Your task to perform on an android device: toggle priority inbox in the gmail app Image 0: 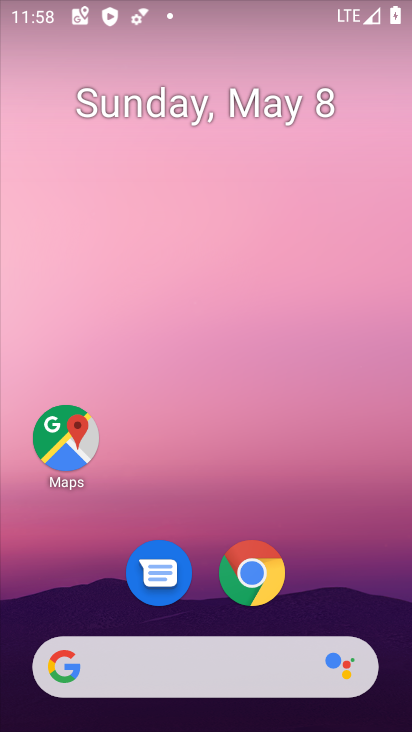
Step 0: drag from (310, 532) to (267, 34)
Your task to perform on an android device: toggle priority inbox in the gmail app Image 1: 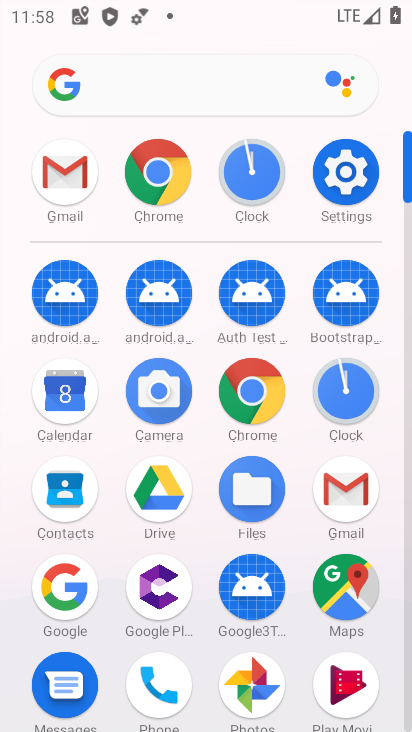
Step 1: drag from (8, 598) to (7, 211)
Your task to perform on an android device: toggle priority inbox in the gmail app Image 2: 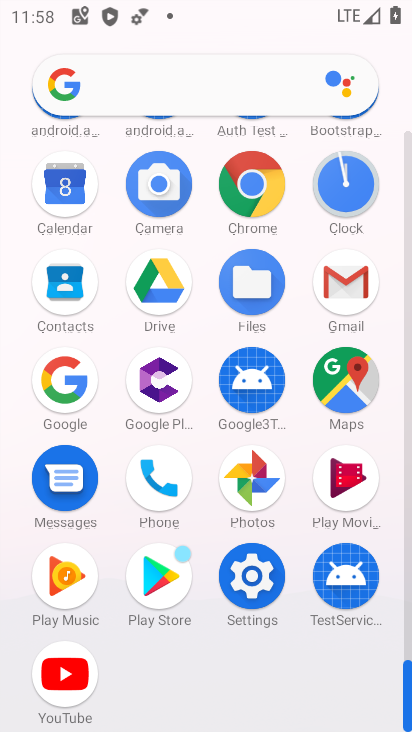
Step 2: click (347, 277)
Your task to perform on an android device: toggle priority inbox in the gmail app Image 3: 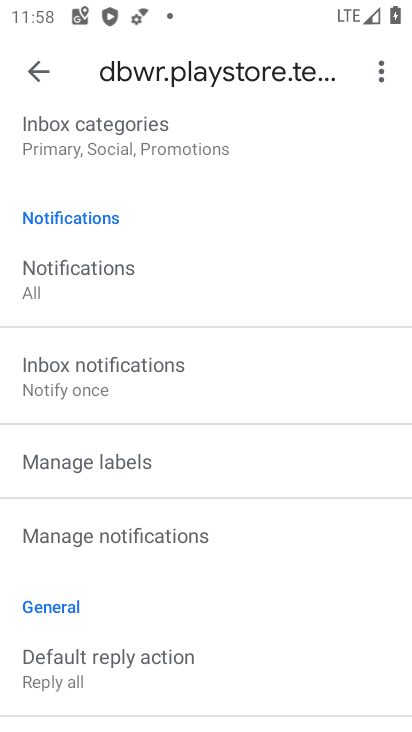
Step 3: drag from (266, 554) to (256, 165)
Your task to perform on an android device: toggle priority inbox in the gmail app Image 4: 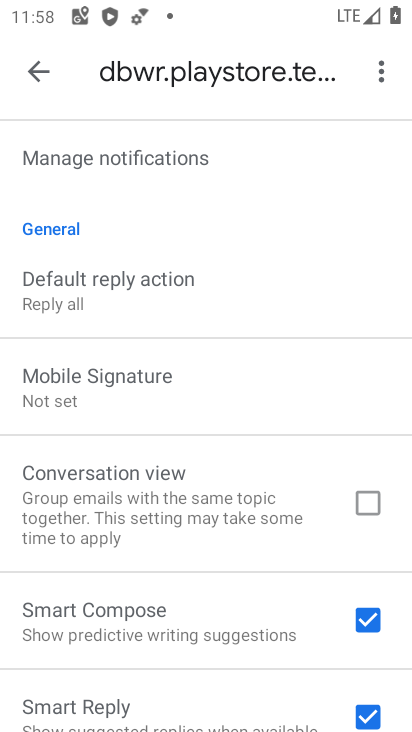
Step 4: drag from (218, 315) to (244, 680)
Your task to perform on an android device: toggle priority inbox in the gmail app Image 5: 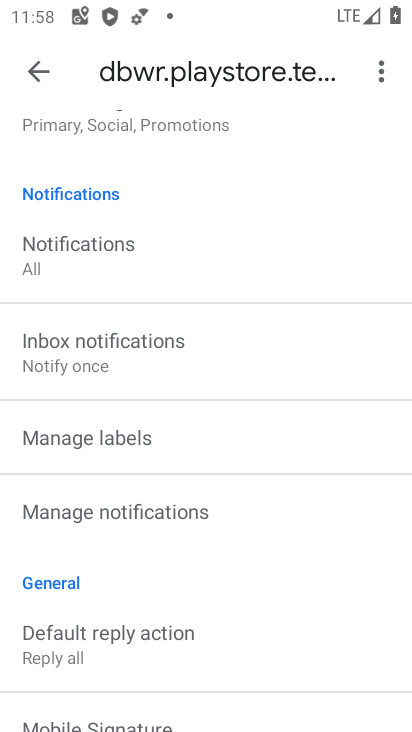
Step 5: drag from (193, 160) to (221, 551)
Your task to perform on an android device: toggle priority inbox in the gmail app Image 6: 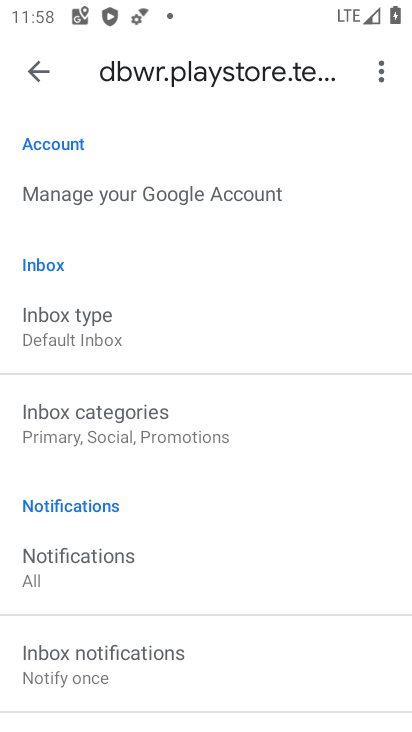
Step 6: click (150, 326)
Your task to perform on an android device: toggle priority inbox in the gmail app Image 7: 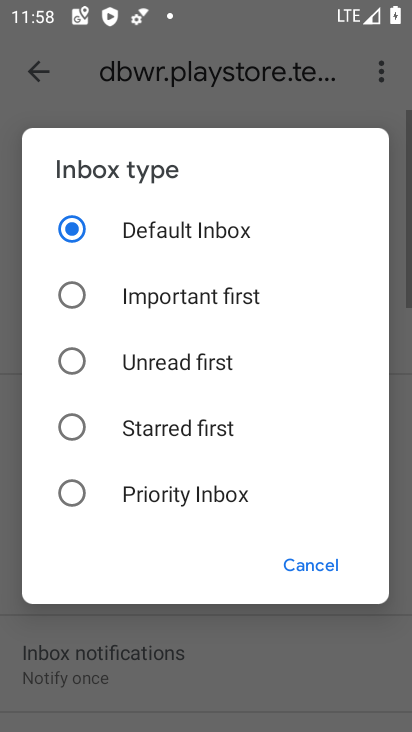
Step 7: click (150, 311)
Your task to perform on an android device: toggle priority inbox in the gmail app Image 8: 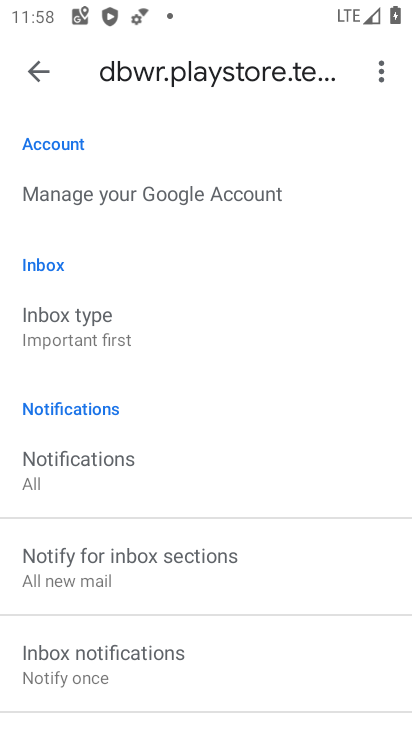
Step 8: click (147, 321)
Your task to perform on an android device: toggle priority inbox in the gmail app Image 9: 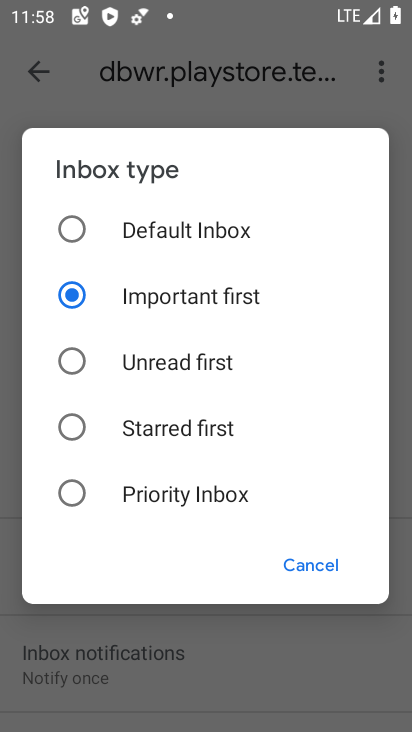
Step 9: click (156, 493)
Your task to perform on an android device: toggle priority inbox in the gmail app Image 10: 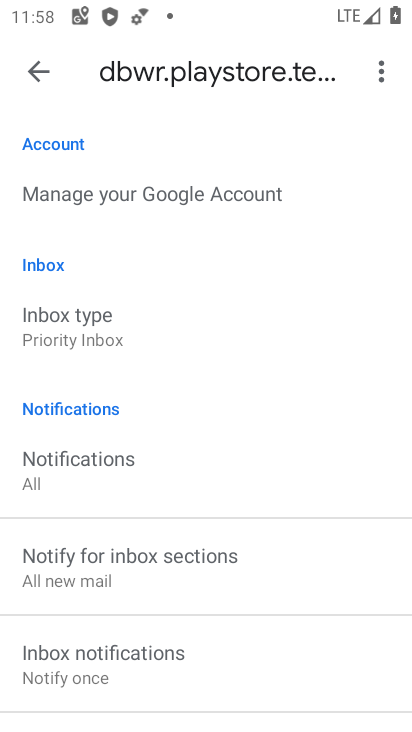
Step 10: task complete